Your task to perform on an android device: Clear the shopping cart on ebay. Add bose soundlink to the cart on ebay, then select checkout. Image 0: 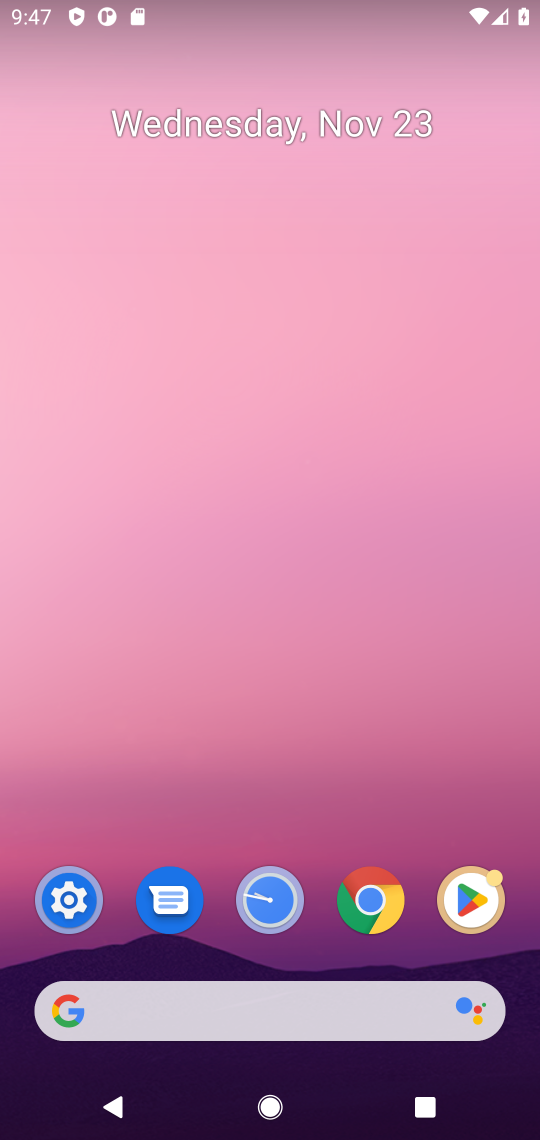
Step 0: click (257, 1019)
Your task to perform on an android device: Clear the shopping cart on ebay. Add bose soundlink to the cart on ebay, then select checkout. Image 1: 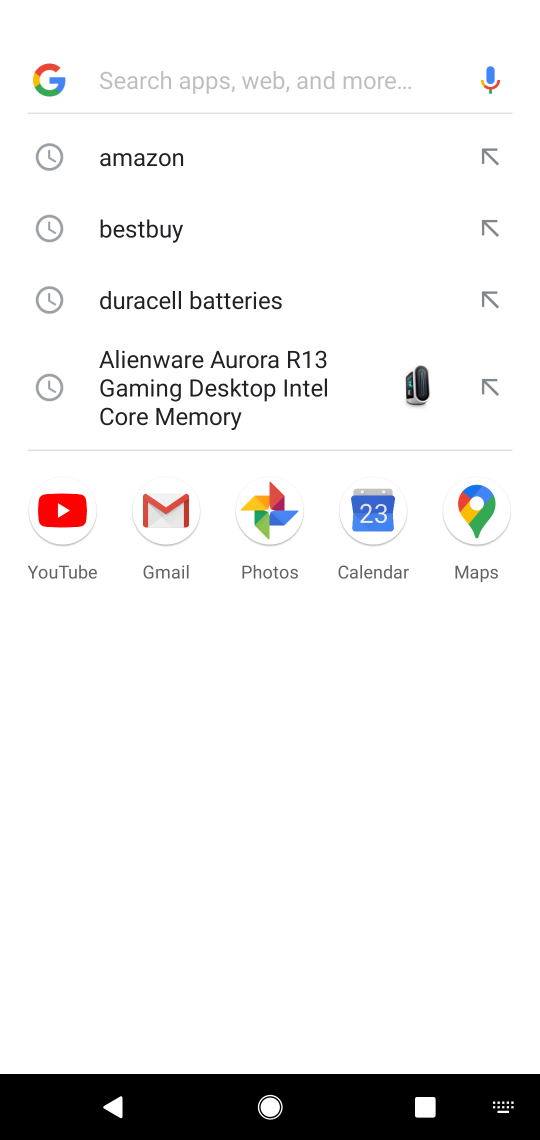
Step 1: type "ebay.com"
Your task to perform on an android device: Clear the shopping cart on ebay. Add bose soundlink to the cart on ebay, then select checkout. Image 2: 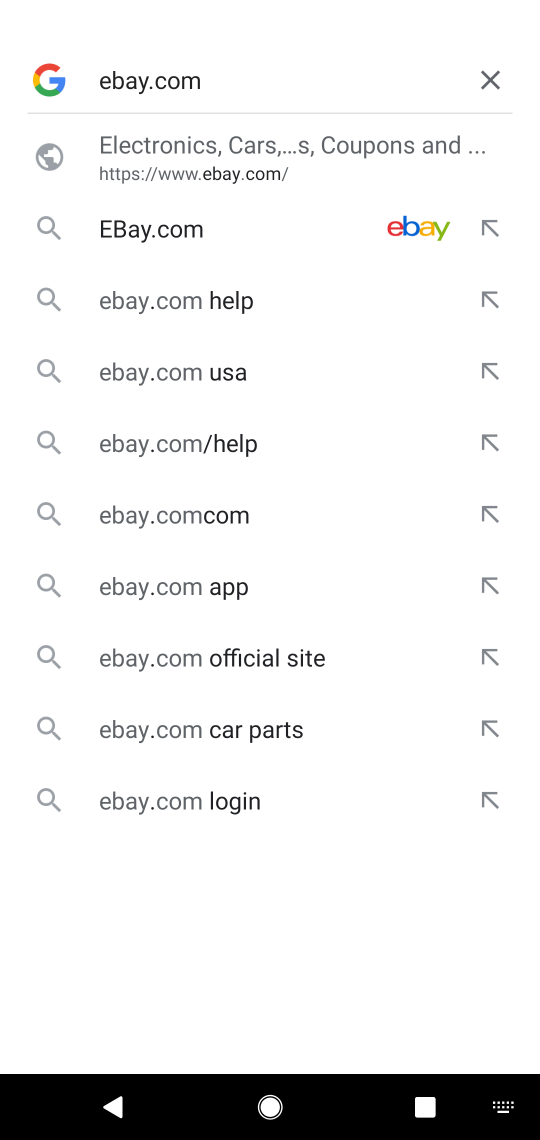
Step 2: click (210, 149)
Your task to perform on an android device: Clear the shopping cart on ebay. Add bose soundlink to the cart on ebay, then select checkout. Image 3: 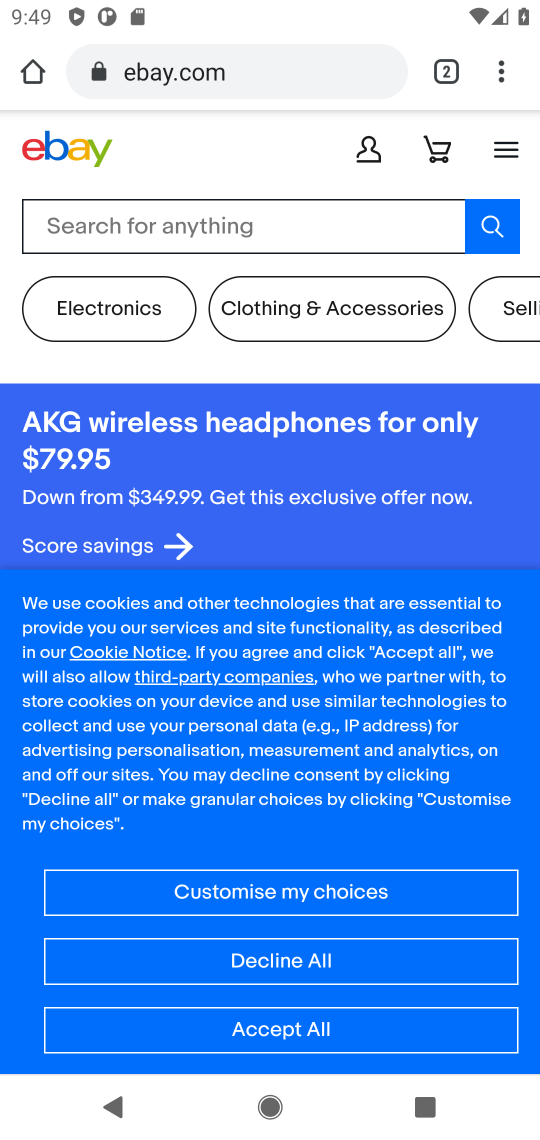
Step 3: task complete